Your task to perform on an android device: turn vacation reply on in the gmail app Image 0: 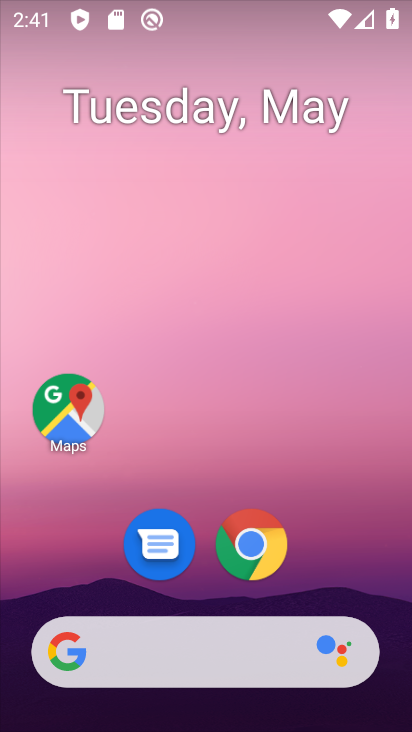
Step 0: drag from (326, 548) to (220, 81)
Your task to perform on an android device: turn vacation reply on in the gmail app Image 1: 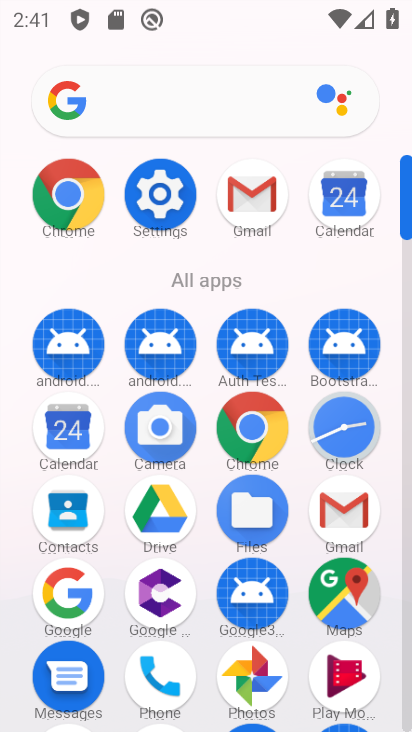
Step 1: click (249, 195)
Your task to perform on an android device: turn vacation reply on in the gmail app Image 2: 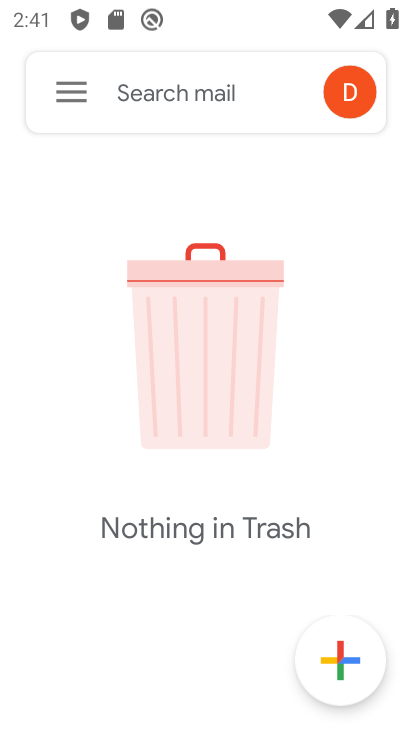
Step 2: click (79, 94)
Your task to perform on an android device: turn vacation reply on in the gmail app Image 3: 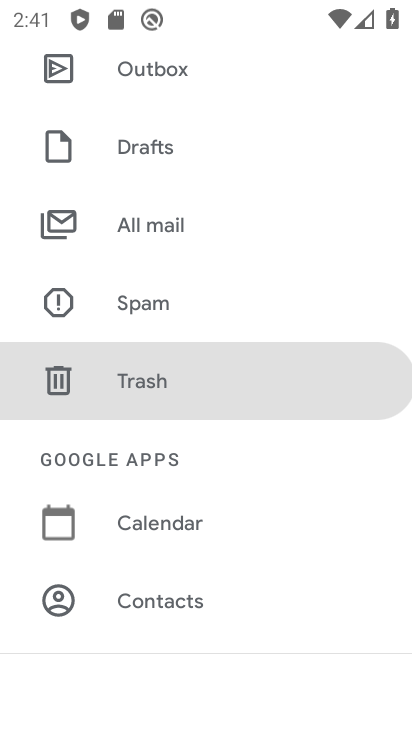
Step 3: drag from (165, 543) to (247, 417)
Your task to perform on an android device: turn vacation reply on in the gmail app Image 4: 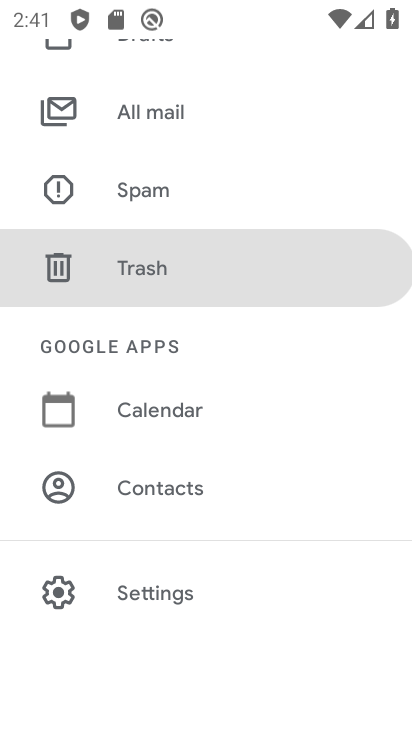
Step 4: drag from (159, 563) to (236, 470)
Your task to perform on an android device: turn vacation reply on in the gmail app Image 5: 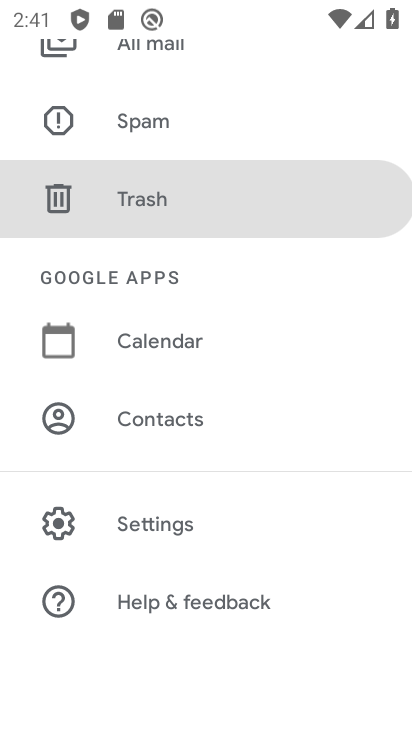
Step 5: click (161, 527)
Your task to perform on an android device: turn vacation reply on in the gmail app Image 6: 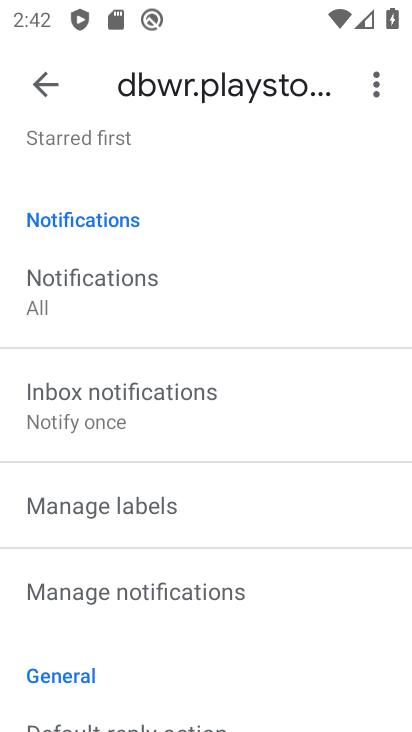
Step 6: drag from (118, 555) to (205, 422)
Your task to perform on an android device: turn vacation reply on in the gmail app Image 7: 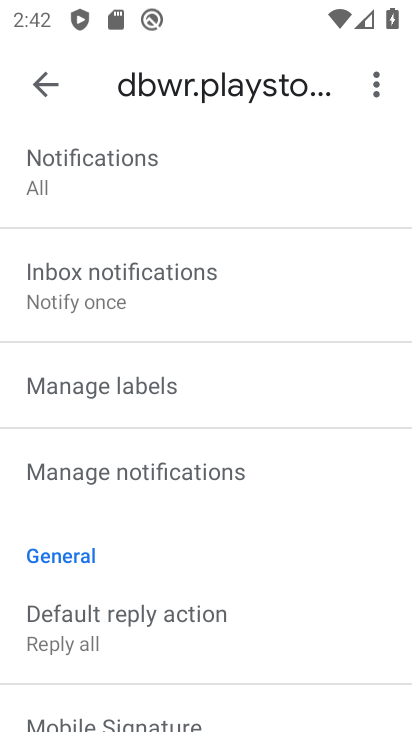
Step 7: drag from (135, 559) to (224, 421)
Your task to perform on an android device: turn vacation reply on in the gmail app Image 8: 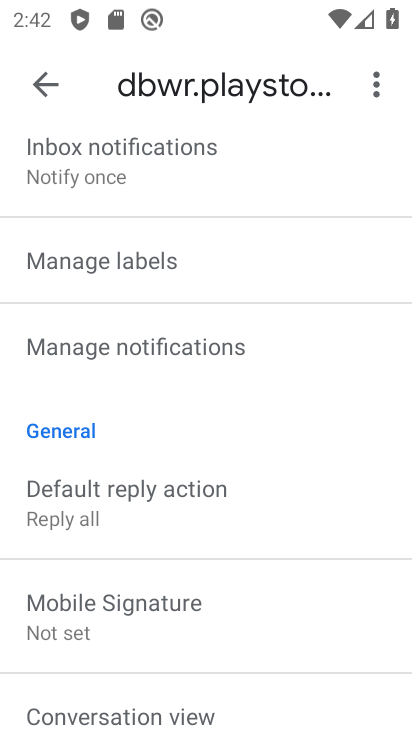
Step 8: drag from (129, 543) to (206, 427)
Your task to perform on an android device: turn vacation reply on in the gmail app Image 9: 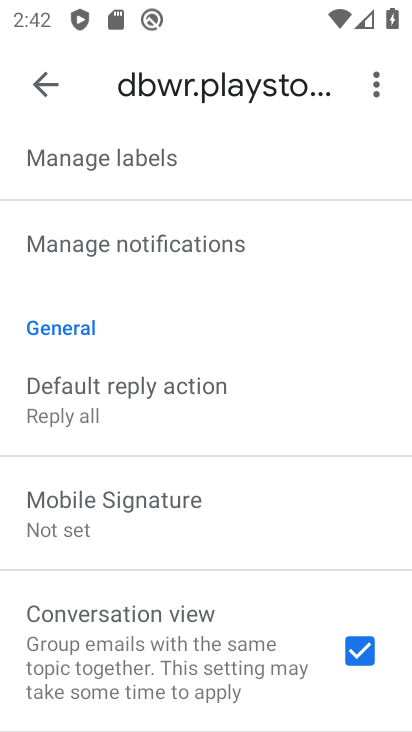
Step 9: drag from (146, 550) to (227, 427)
Your task to perform on an android device: turn vacation reply on in the gmail app Image 10: 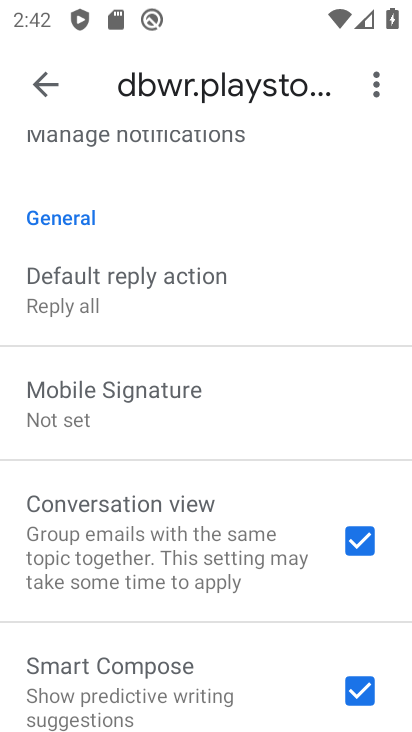
Step 10: drag from (149, 604) to (253, 453)
Your task to perform on an android device: turn vacation reply on in the gmail app Image 11: 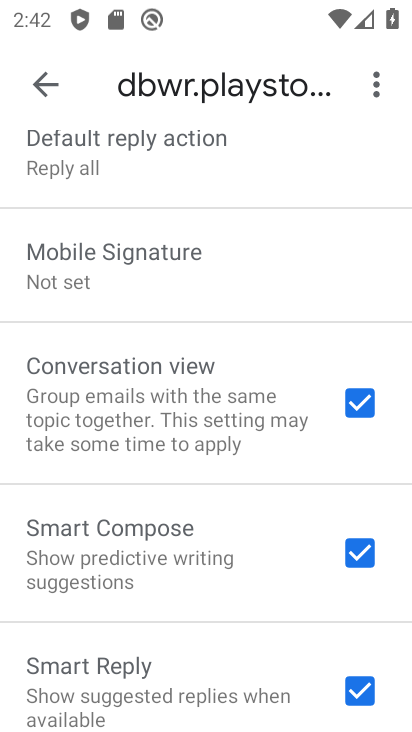
Step 11: drag from (153, 609) to (244, 492)
Your task to perform on an android device: turn vacation reply on in the gmail app Image 12: 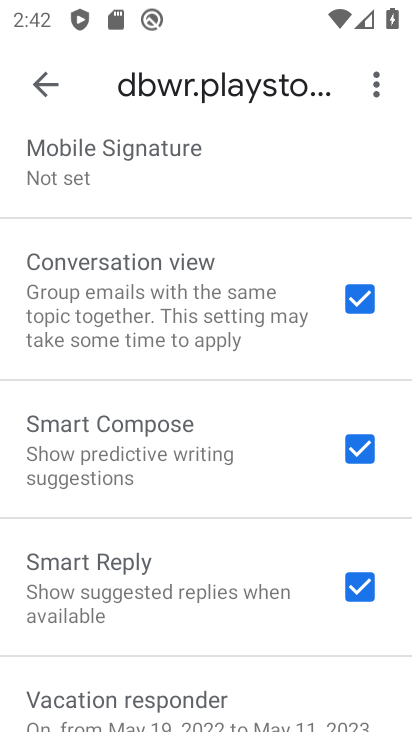
Step 12: drag from (158, 658) to (232, 541)
Your task to perform on an android device: turn vacation reply on in the gmail app Image 13: 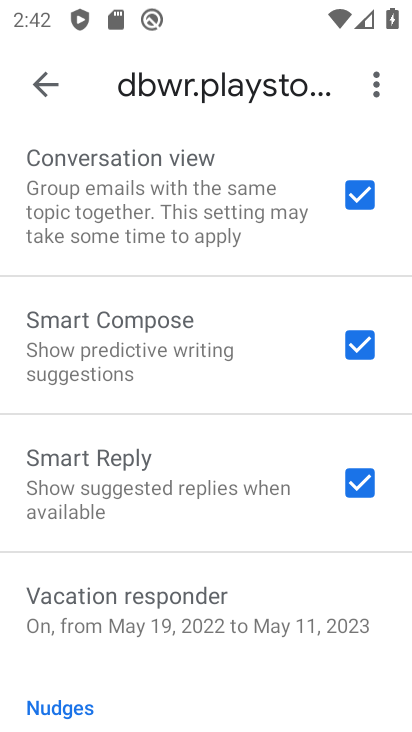
Step 13: click (183, 615)
Your task to perform on an android device: turn vacation reply on in the gmail app Image 14: 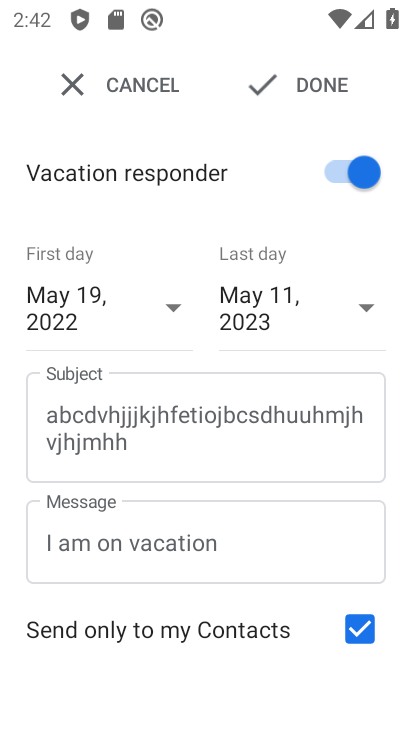
Step 14: task complete